Your task to perform on an android device: empty trash in the gmail app Image 0: 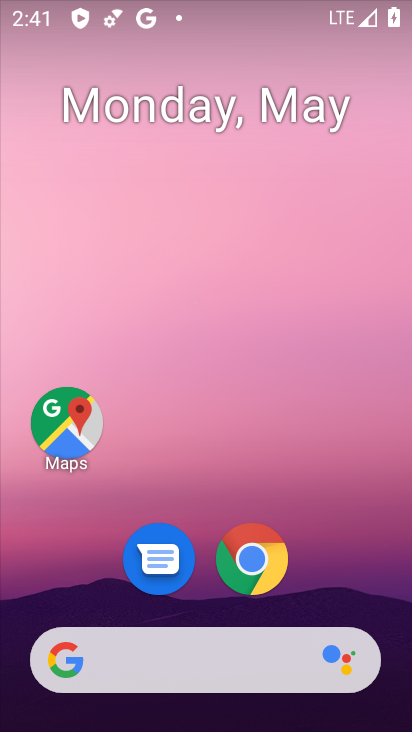
Step 0: drag from (346, 591) to (270, 94)
Your task to perform on an android device: empty trash in the gmail app Image 1: 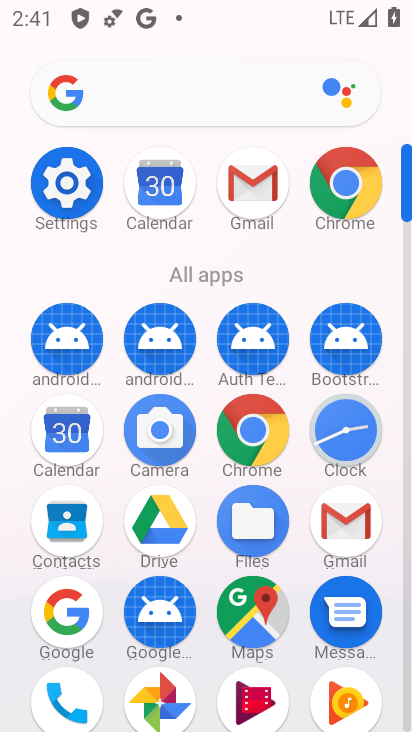
Step 1: click (259, 180)
Your task to perform on an android device: empty trash in the gmail app Image 2: 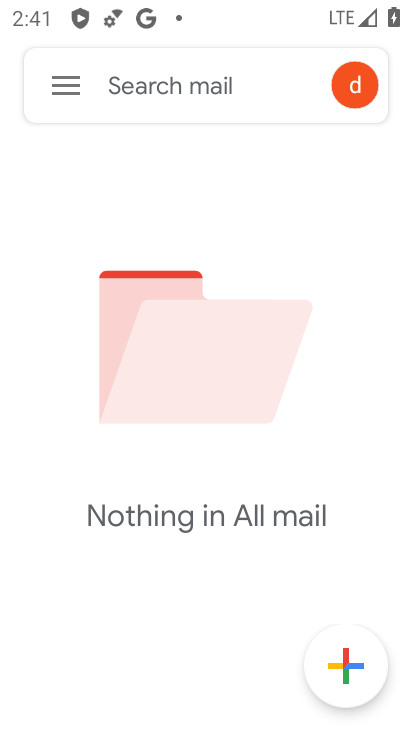
Step 2: click (73, 79)
Your task to perform on an android device: empty trash in the gmail app Image 3: 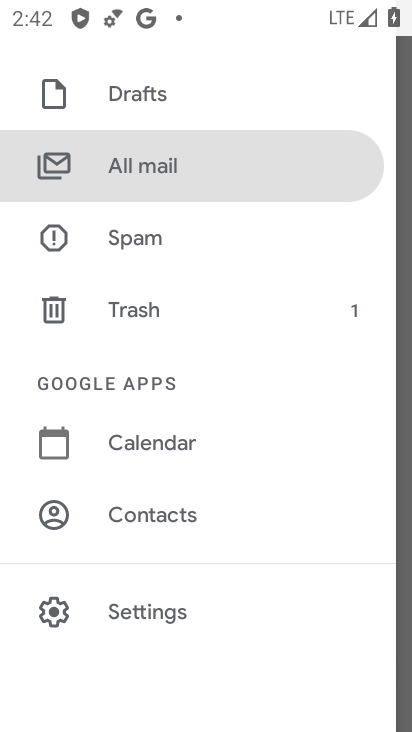
Step 3: click (175, 297)
Your task to perform on an android device: empty trash in the gmail app Image 4: 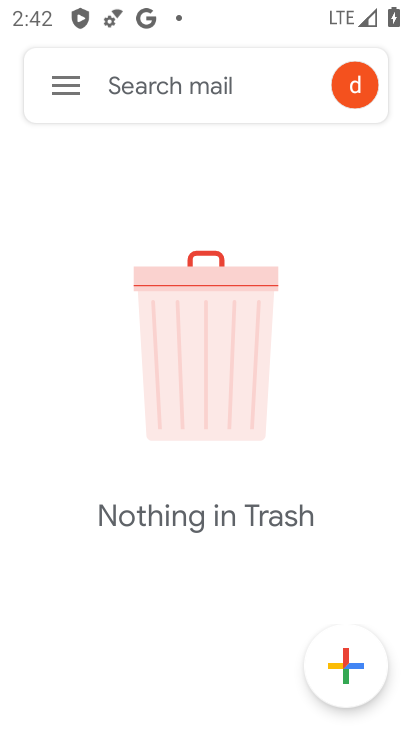
Step 4: task complete